Your task to perform on an android device: visit the assistant section in the google photos Image 0: 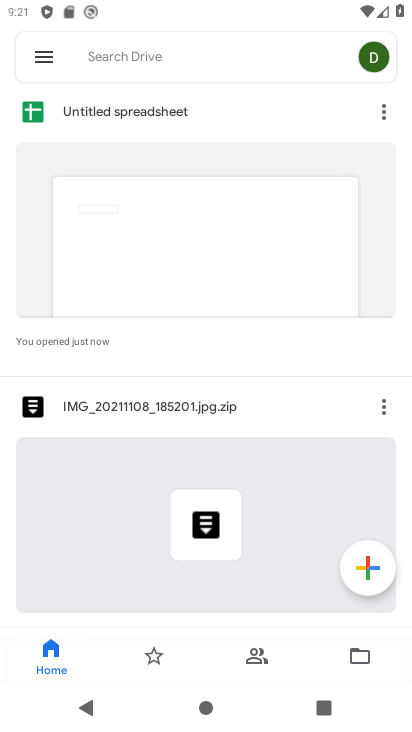
Step 0: press home button
Your task to perform on an android device: visit the assistant section in the google photos Image 1: 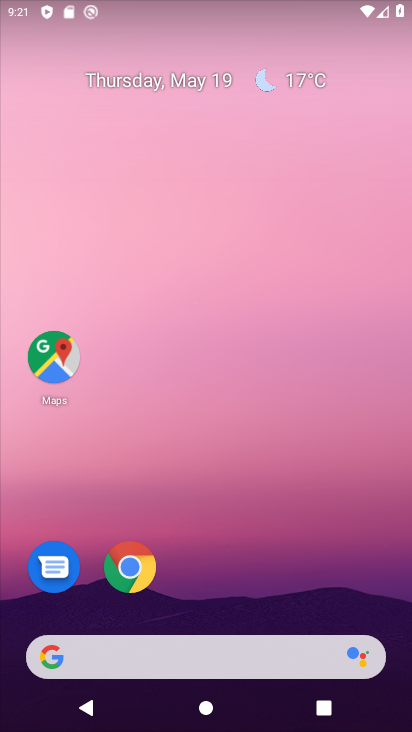
Step 1: drag from (354, 611) to (264, 22)
Your task to perform on an android device: visit the assistant section in the google photos Image 2: 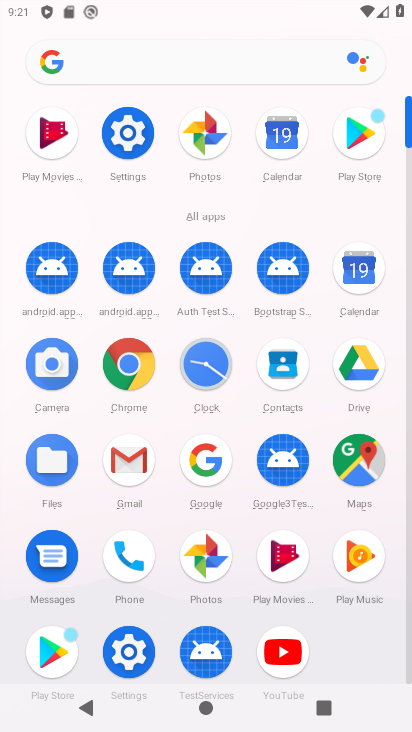
Step 2: click (204, 563)
Your task to perform on an android device: visit the assistant section in the google photos Image 3: 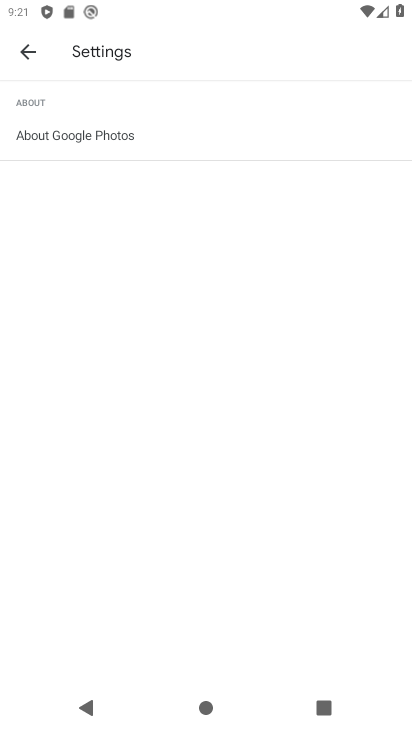
Step 3: click (23, 58)
Your task to perform on an android device: visit the assistant section in the google photos Image 4: 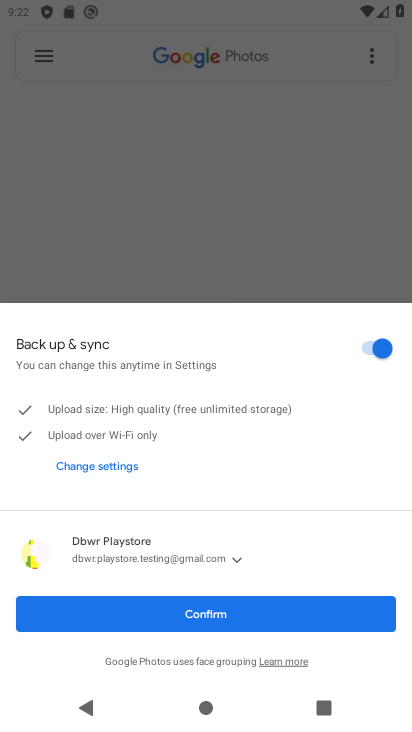
Step 4: click (264, 615)
Your task to perform on an android device: visit the assistant section in the google photos Image 5: 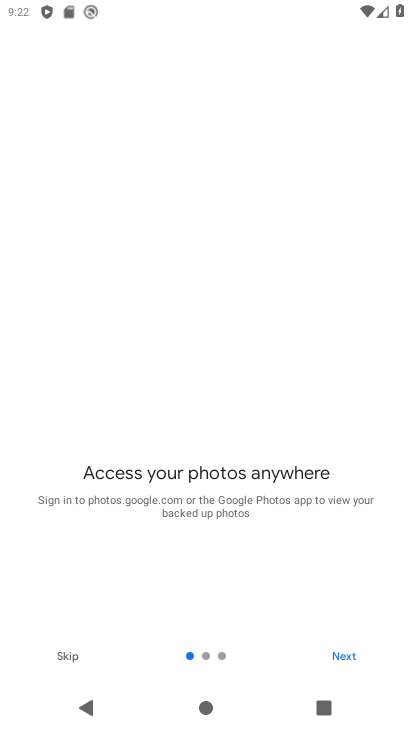
Step 5: click (351, 652)
Your task to perform on an android device: visit the assistant section in the google photos Image 6: 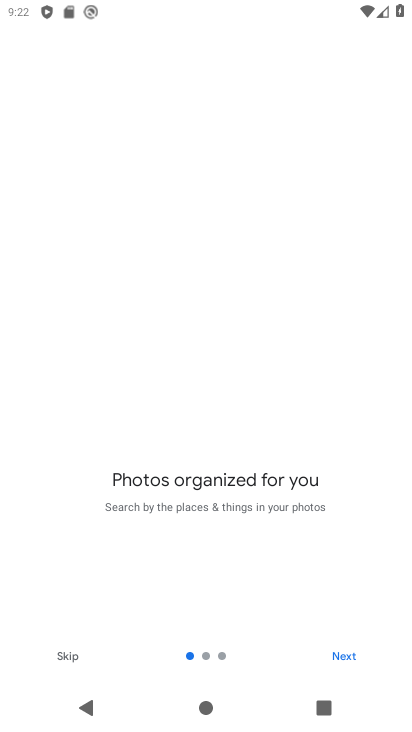
Step 6: click (351, 652)
Your task to perform on an android device: visit the assistant section in the google photos Image 7: 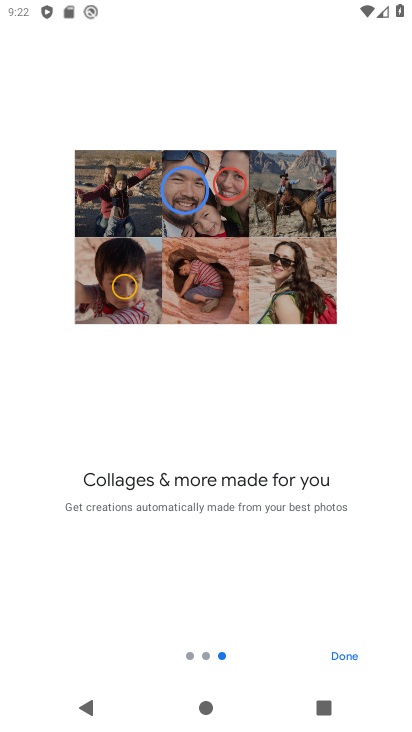
Step 7: click (351, 652)
Your task to perform on an android device: visit the assistant section in the google photos Image 8: 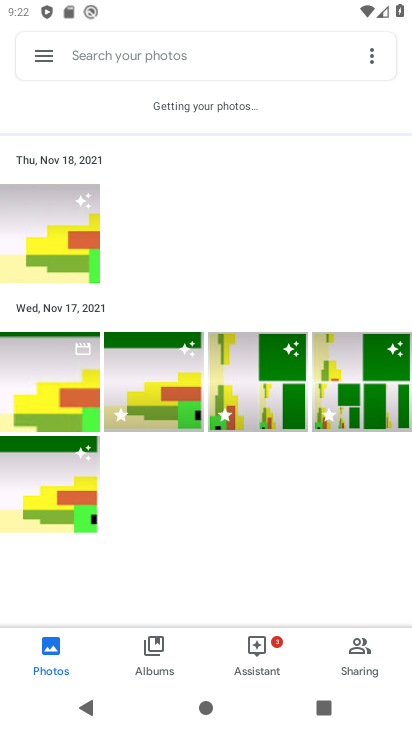
Step 8: click (251, 654)
Your task to perform on an android device: visit the assistant section in the google photos Image 9: 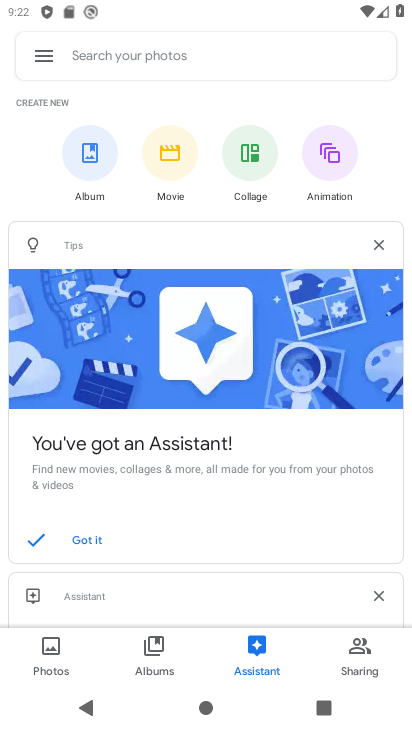
Step 9: task complete